Your task to perform on an android device: What is the recent news? Image 0: 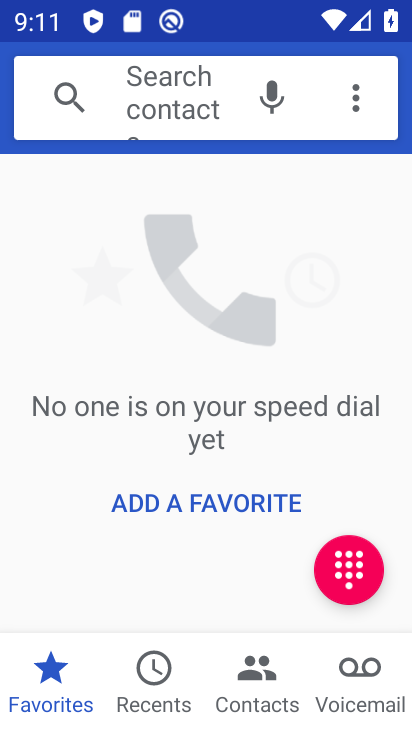
Step 0: press home button
Your task to perform on an android device: What is the recent news? Image 1: 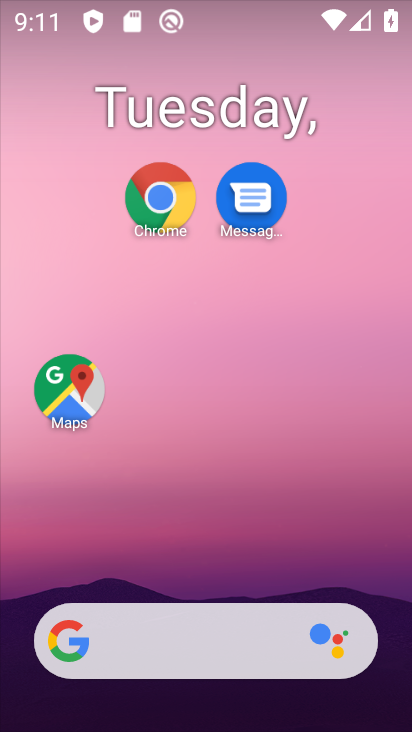
Step 1: drag from (16, 534) to (390, 544)
Your task to perform on an android device: What is the recent news? Image 2: 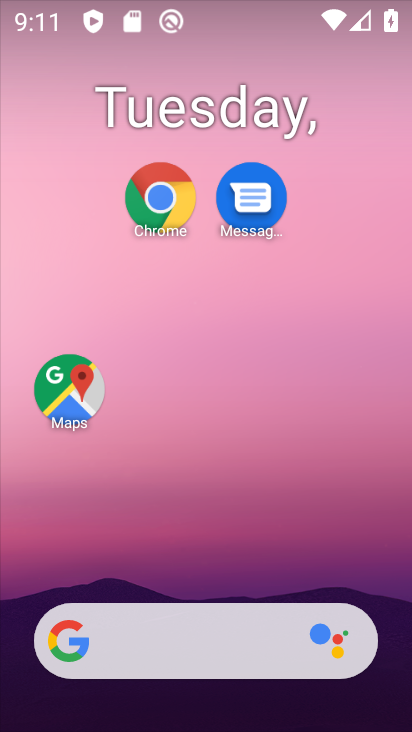
Step 2: drag from (33, 274) to (360, 287)
Your task to perform on an android device: What is the recent news? Image 3: 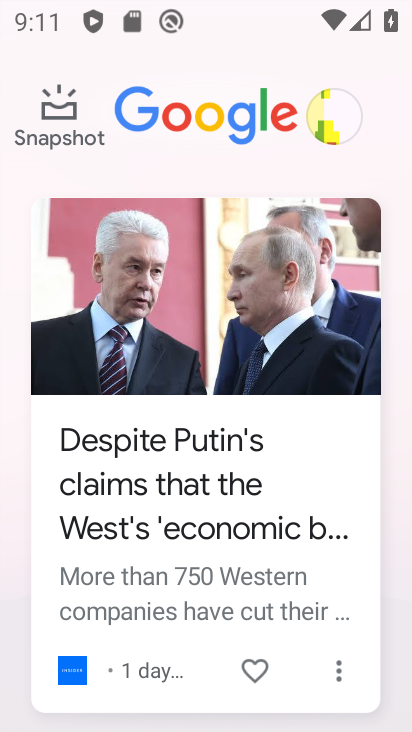
Step 3: click (139, 592)
Your task to perform on an android device: What is the recent news? Image 4: 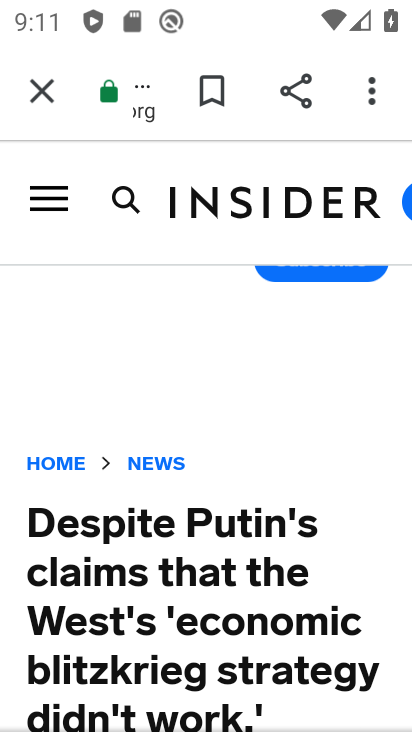
Step 4: task complete